Your task to perform on an android device: read, delete, or share a saved page in the chrome app Image 0: 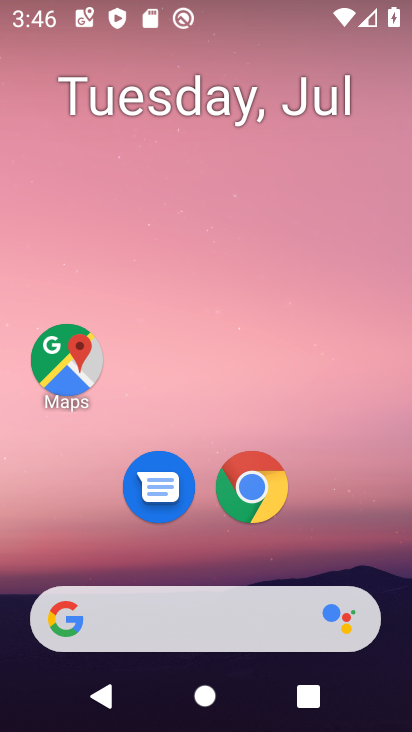
Step 0: click (249, 492)
Your task to perform on an android device: read, delete, or share a saved page in the chrome app Image 1: 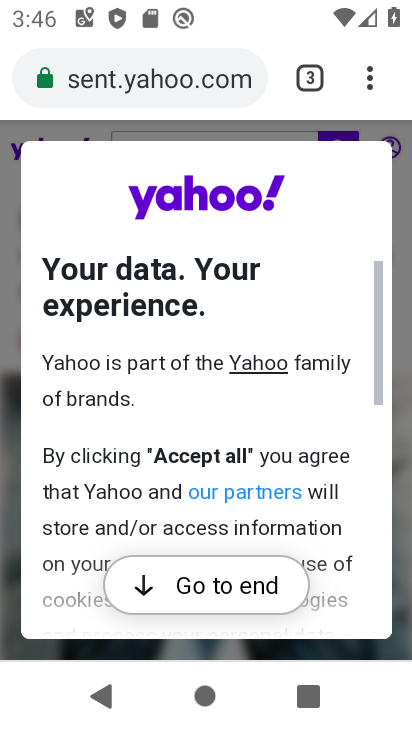
Step 1: drag from (366, 76) to (122, 523)
Your task to perform on an android device: read, delete, or share a saved page in the chrome app Image 2: 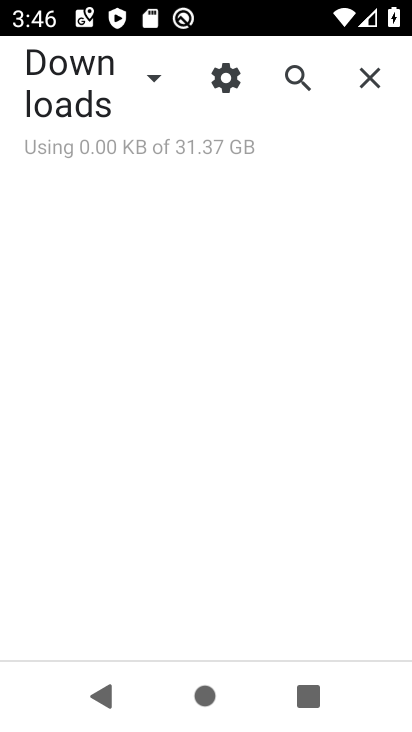
Step 2: click (163, 75)
Your task to perform on an android device: read, delete, or share a saved page in the chrome app Image 3: 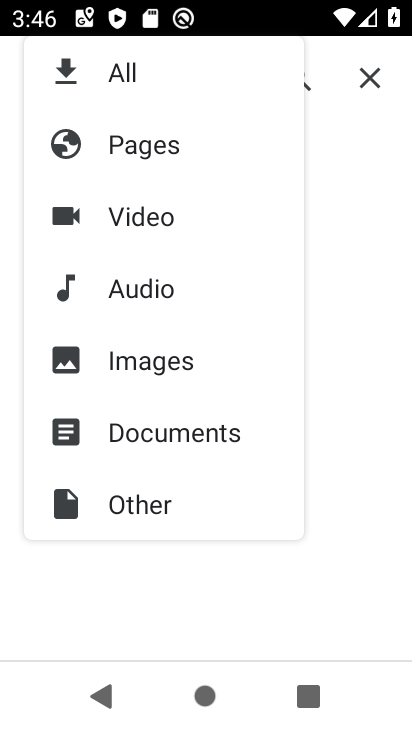
Step 3: click (128, 143)
Your task to perform on an android device: read, delete, or share a saved page in the chrome app Image 4: 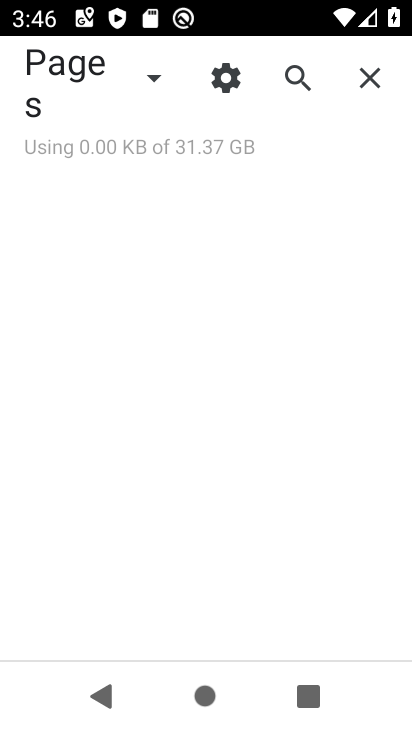
Step 4: task complete